Your task to perform on an android device: change the clock style Image 0: 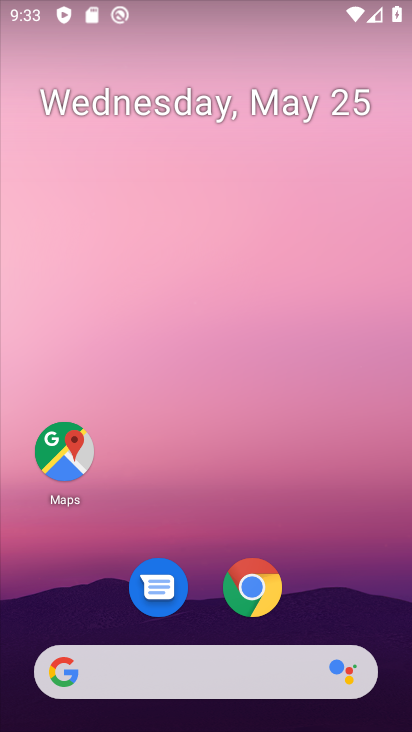
Step 0: drag from (202, 628) to (205, 2)
Your task to perform on an android device: change the clock style Image 1: 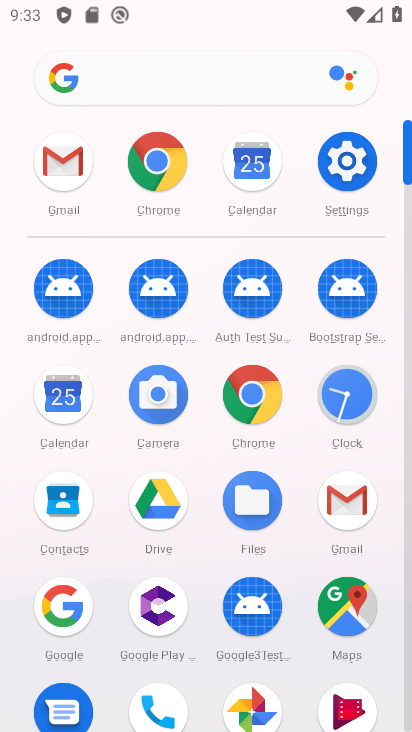
Step 1: click (354, 385)
Your task to perform on an android device: change the clock style Image 2: 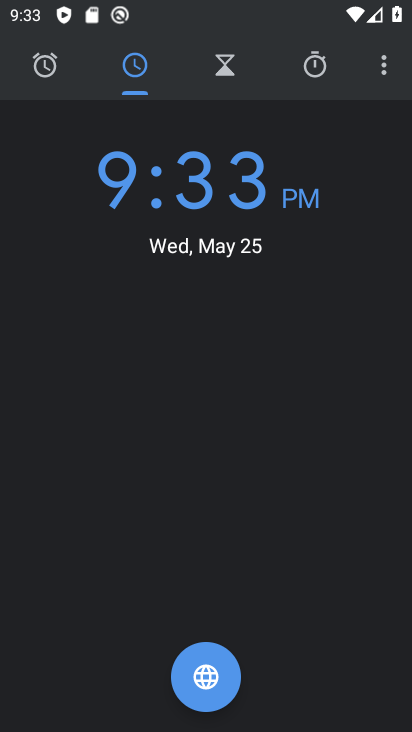
Step 2: click (373, 73)
Your task to perform on an android device: change the clock style Image 3: 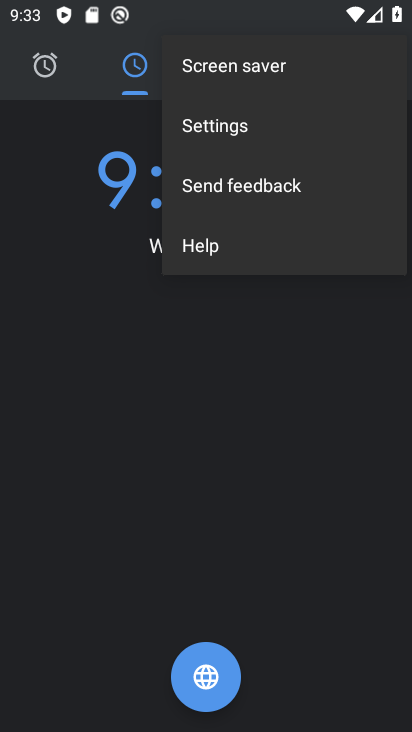
Step 3: click (227, 129)
Your task to perform on an android device: change the clock style Image 4: 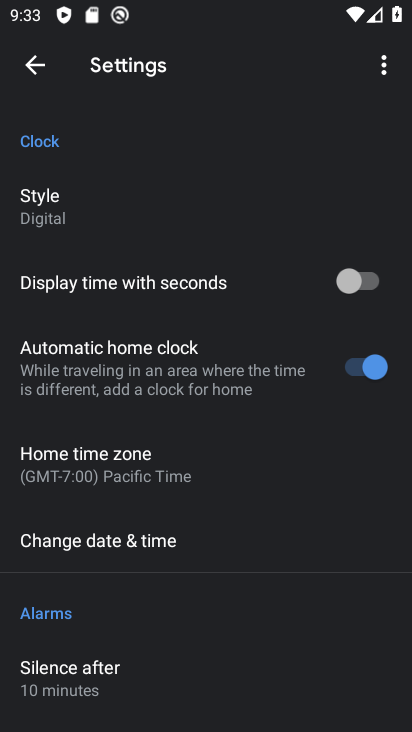
Step 4: click (67, 224)
Your task to perform on an android device: change the clock style Image 5: 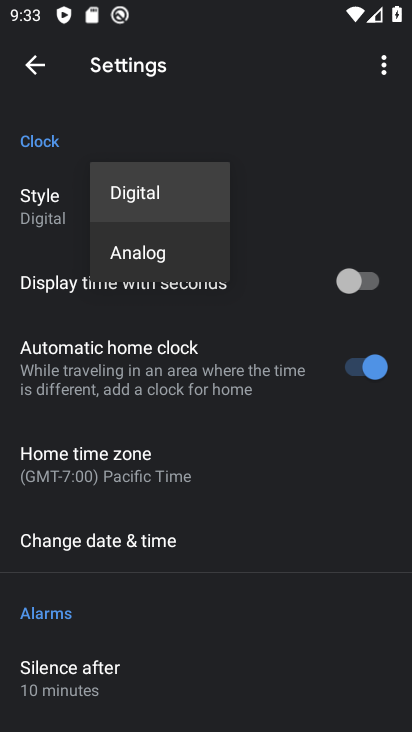
Step 5: click (157, 254)
Your task to perform on an android device: change the clock style Image 6: 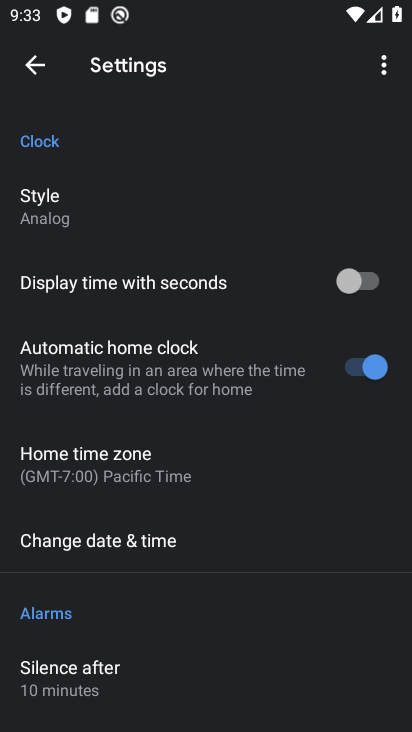
Step 6: task complete